Your task to perform on an android device: Open Chrome and go to the settings page Image 0: 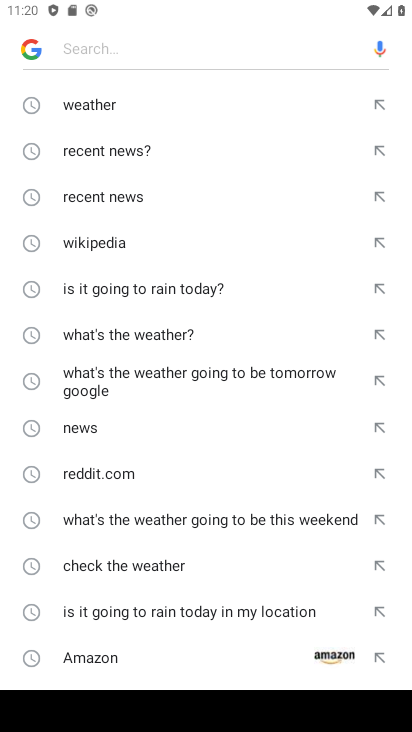
Step 0: press home button
Your task to perform on an android device: Open Chrome and go to the settings page Image 1: 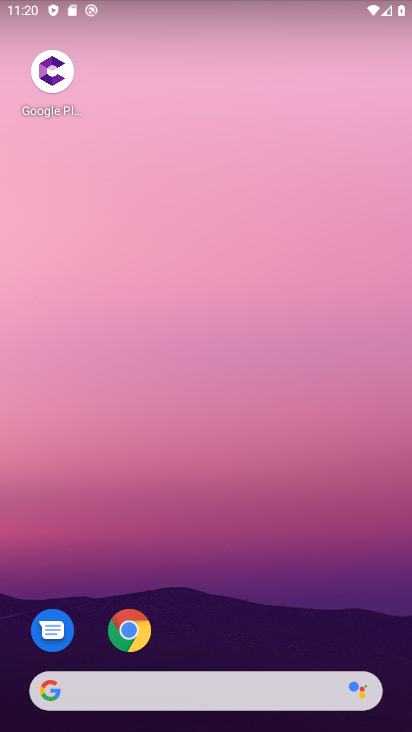
Step 1: click (130, 629)
Your task to perform on an android device: Open Chrome and go to the settings page Image 2: 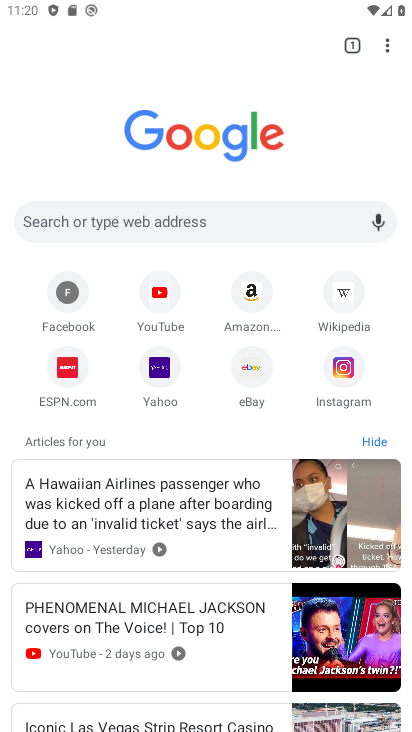
Step 2: click (390, 44)
Your task to perform on an android device: Open Chrome and go to the settings page Image 3: 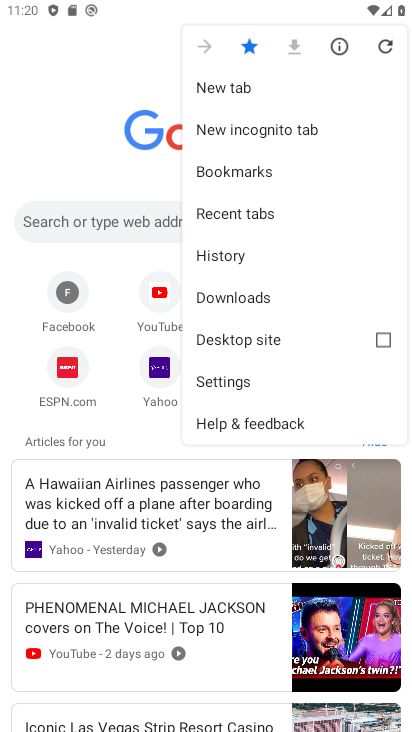
Step 3: click (229, 382)
Your task to perform on an android device: Open Chrome and go to the settings page Image 4: 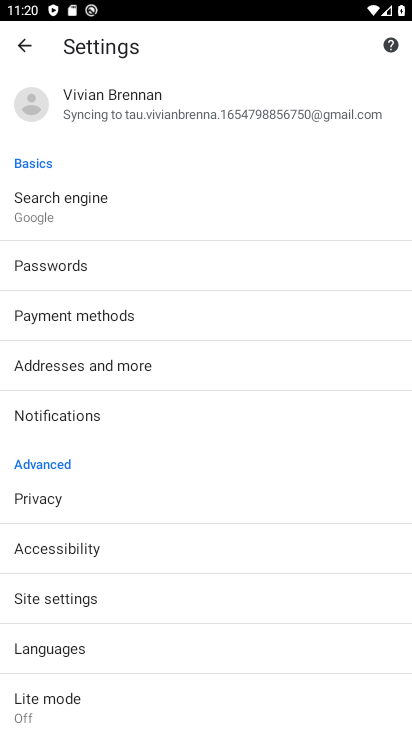
Step 4: task complete